Your task to perform on an android device: turn smart compose on in the gmail app Image 0: 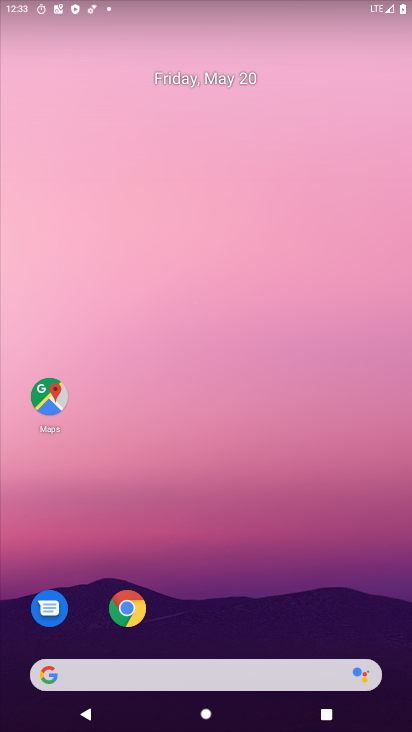
Step 0: drag from (273, 582) to (293, 145)
Your task to perform on an android device: turn smart compose on in the gmail app Image 1: 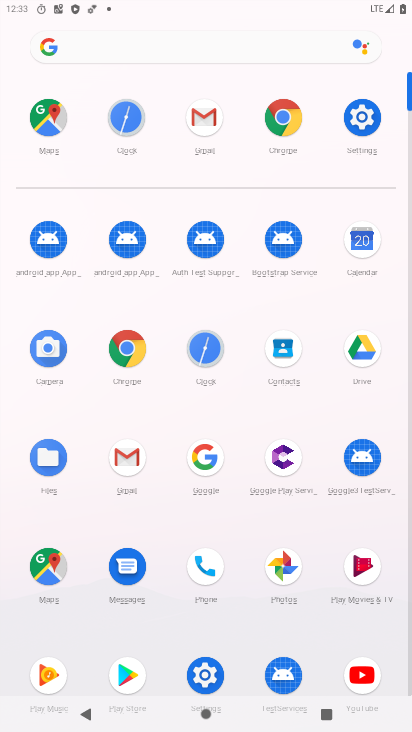
Step 1: click (139, 477)
Your task to perform on an android device: turn smart compose on in the gmail app Image 2: 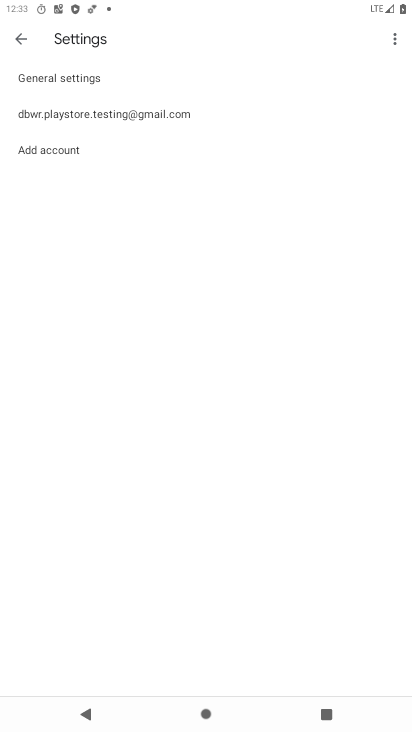
Step 2: click (156, 118)
Your task to perform on an android device: turn smart compose on in the gmail app Image 3: 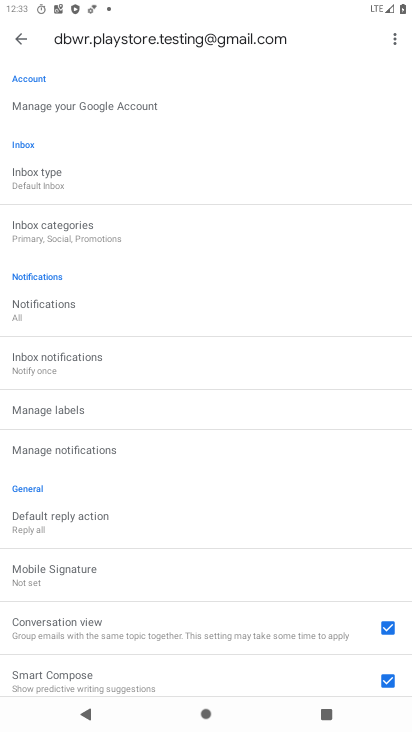
Step 3: task complete